Your task to perform on an android device: Is it going to rain today? Image 0: 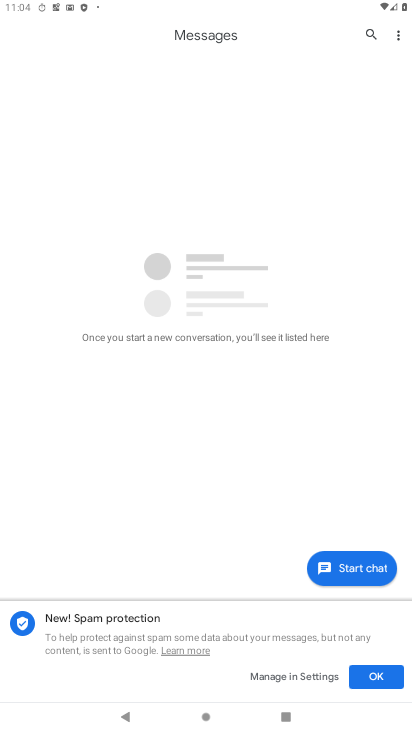
Step 0: press home button
Your task to perform on an android device: Is it going to rain today? Image 1: 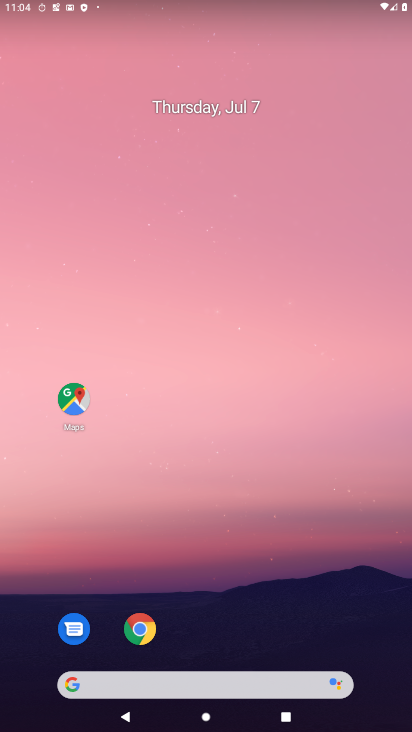
Step 1: click (150, 614)
Your task to perform on an android device: Is it going to rain today? Image 2: 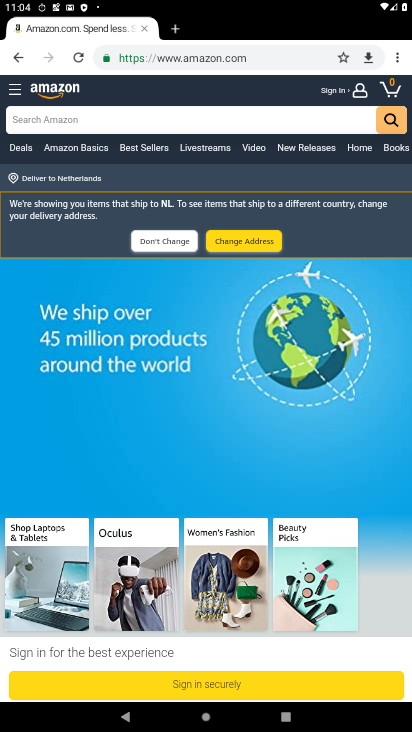
Step 2: click (226, 57)
Your task to perform on an android device: Is it going to rain today? Image 3: 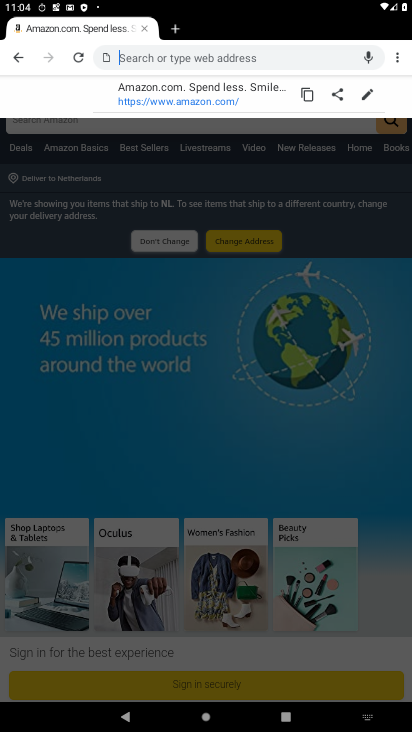
Step 3: type "Is it going to rain today?"
Your task to perform on an android device: Is it going to rain today? Image 4: 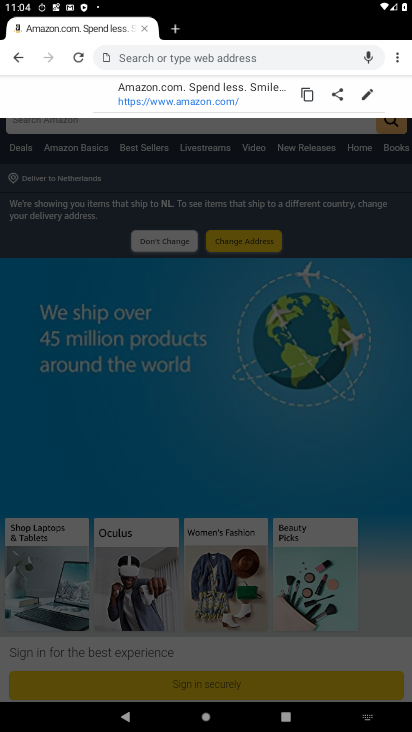
Step 4: click (213, 96)
Your task to perform on an android device: Is it going to rain today? Image 5: 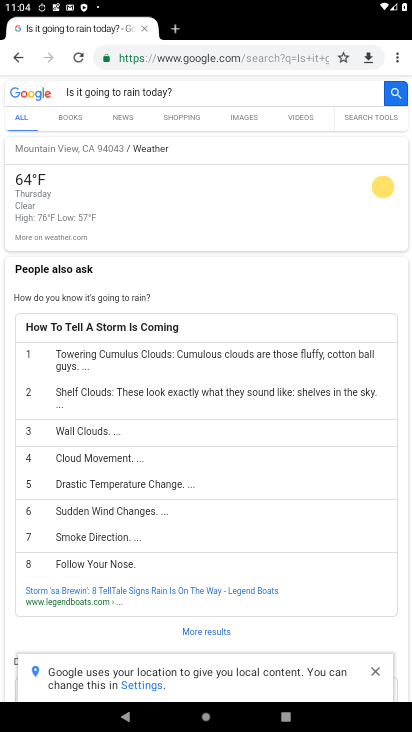
Step 5: task complete